Your task to perform on an android device: Open privacy settings Image 0: 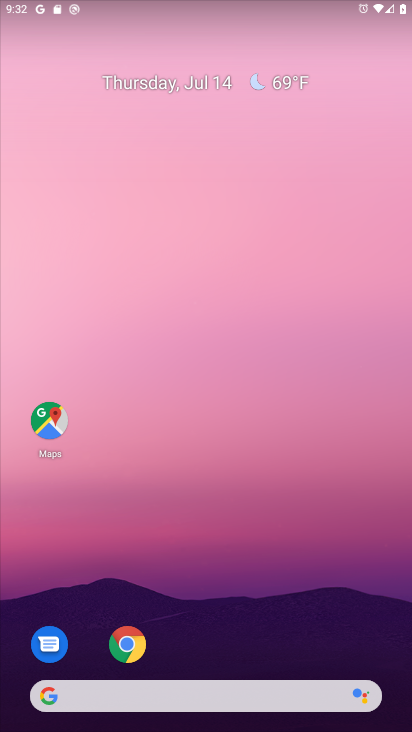
Step 0: drag from (175, 360) to (242, 35)
Your task to perform on an android device: Open privacy settings Image 1: 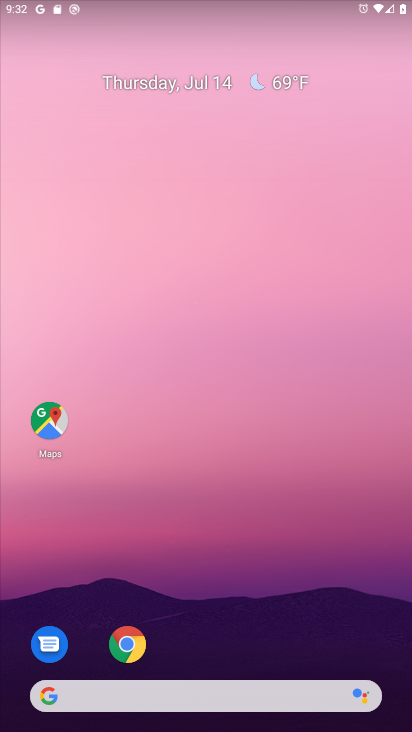
Step 1: drag from (202, 653) to (166, 292)
Your task to perform on an android device: Open privacy settings Image 2: 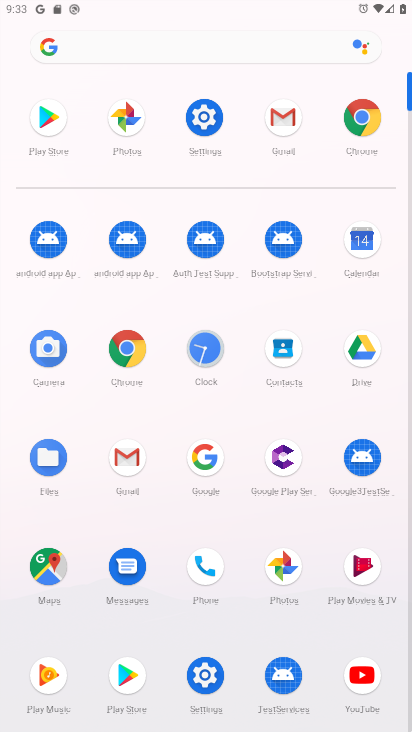
Step 2: click (202, 106)
Your task to perform on an android device: Open privacy settings Image 3: 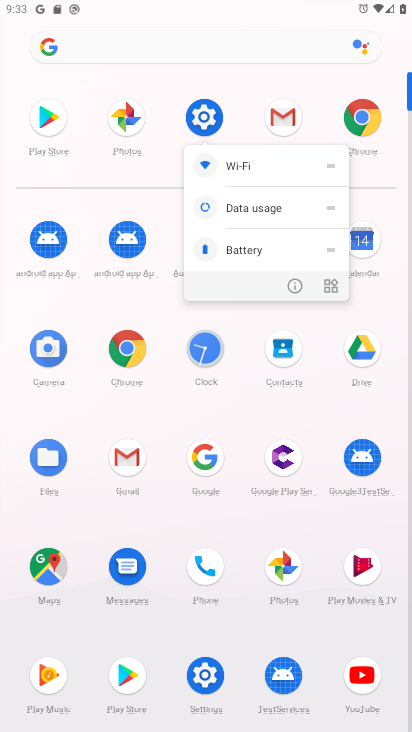
Step 3: click (198, 111)
Your task to perform on an android device: Open privacy settings Image 4: 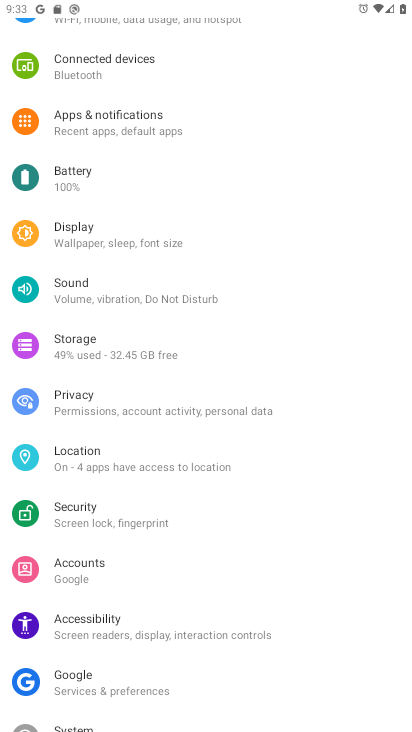
Step 4: click (193, 408)
Your task to perform on an android device: Open privacy settings Image 5: 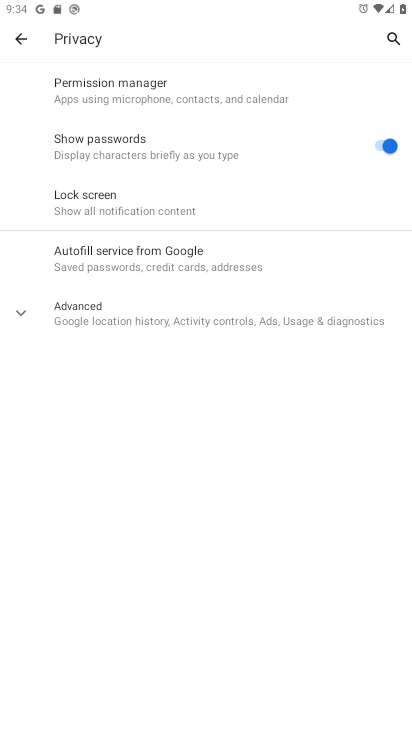
Step 5: task complete